Your task to perform on an android device: delete browsing data in the chrome app Image 0: 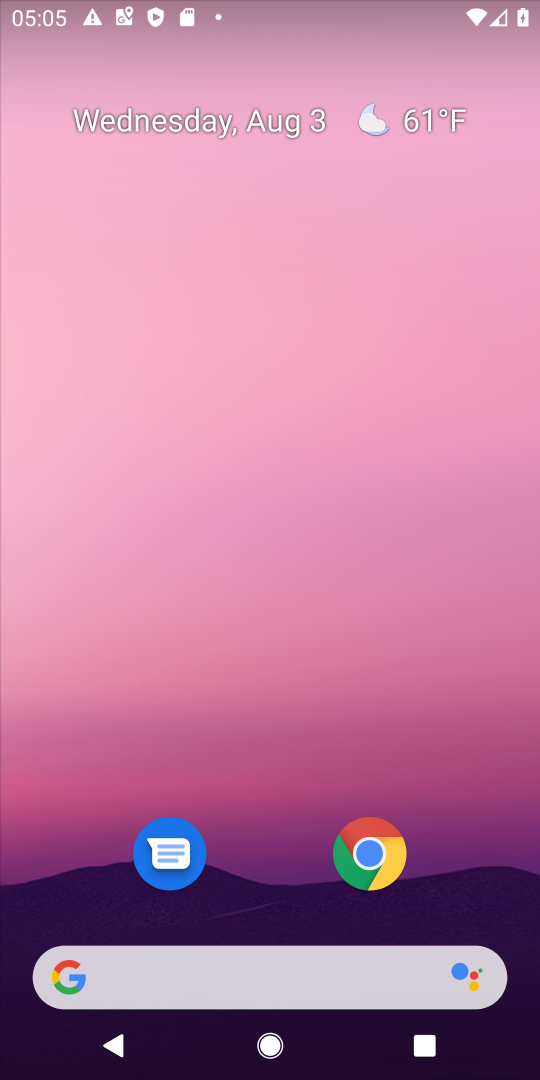
Step 0: click (365, 856)
Your task to perform on an android device: delete browsing data in the chrome app Image 1: 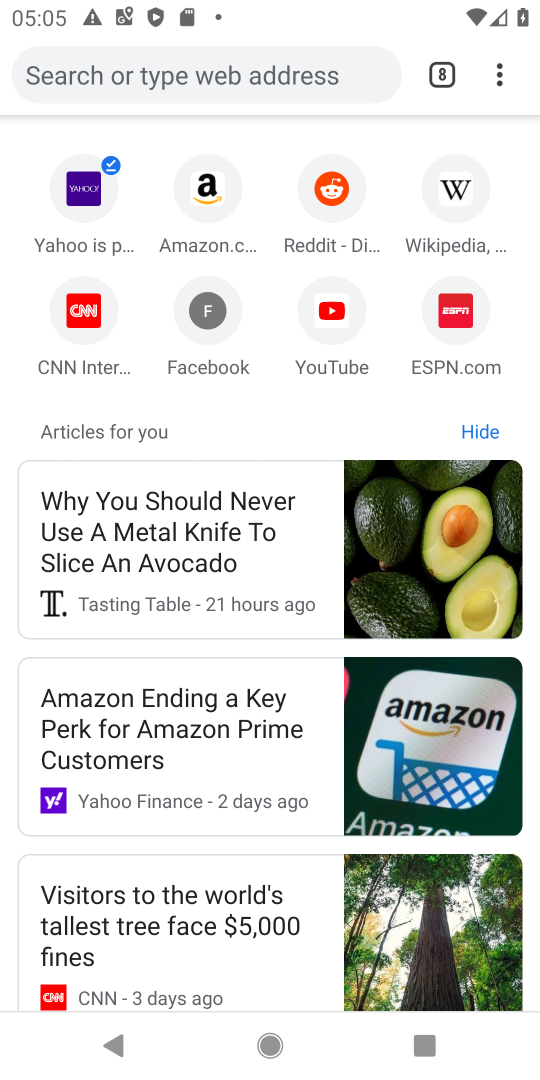
Step 1: click (500, 84)
Your task to perform on an android device: delete browsing data in the chrome app Image 2: 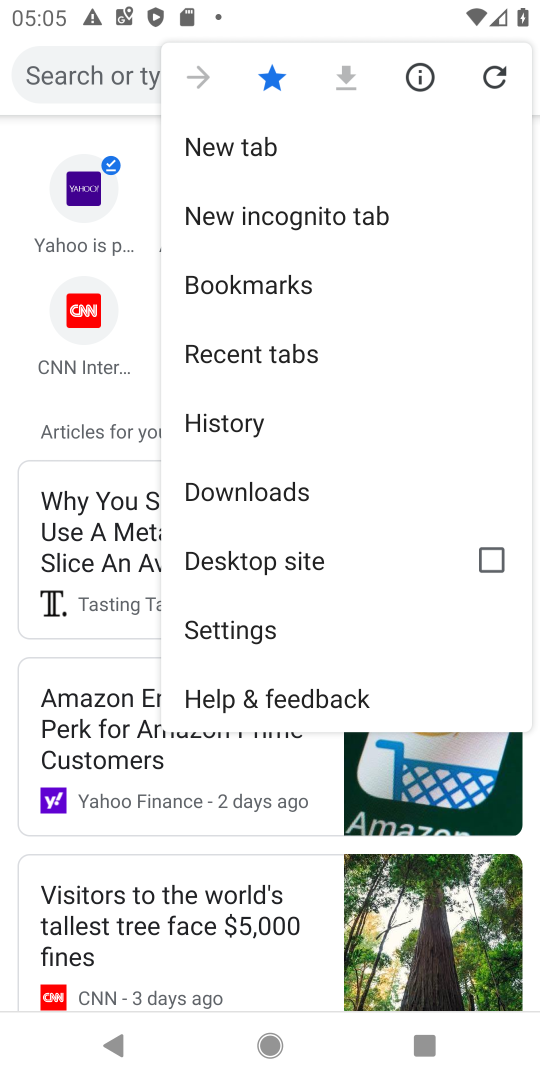
Step 2: click (244, 421)
Your task to perform on an android device: delete browsing data in the chrome app Image 3: 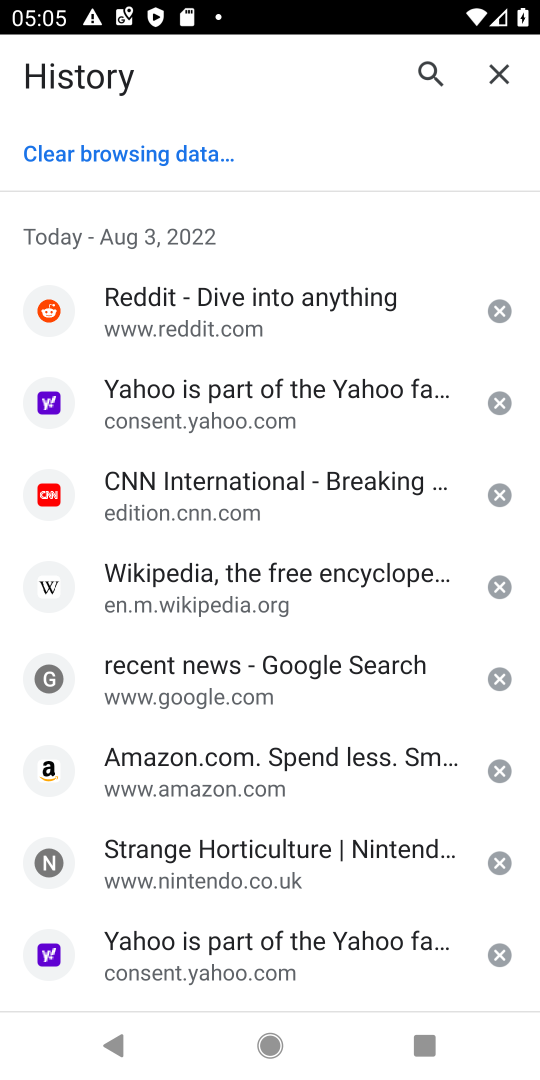
Step 3: click (135, 154)
Your task to perform on an android device: delete browsing data in the chrome app Image 4: 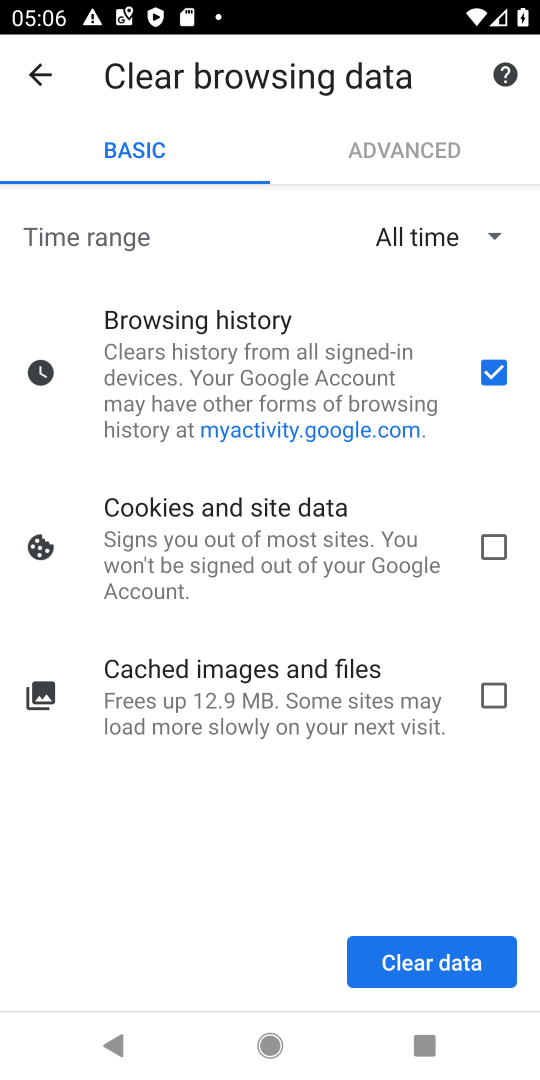
Step 4: click (447, 967)
Your task to perform on an android device: delete browsing data in the chrome app Image 5: 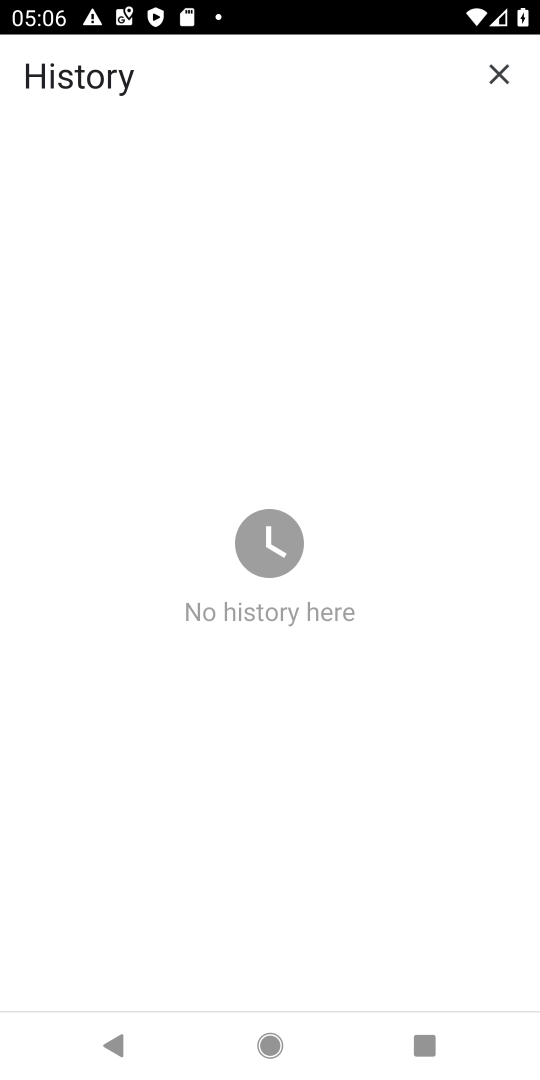
Step 5: task complete